Your task to perform on an android device: turn on the 24-hour format for clock Image 0: 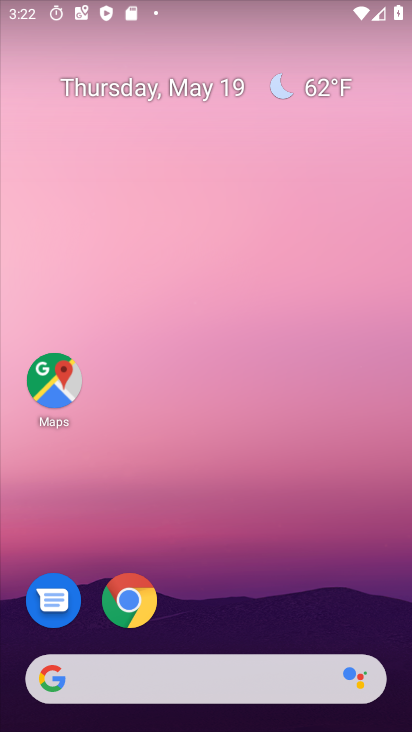
Step 0: press home button
Your task to perform on an android device: turn on the 24-hour format for clock Image 1: 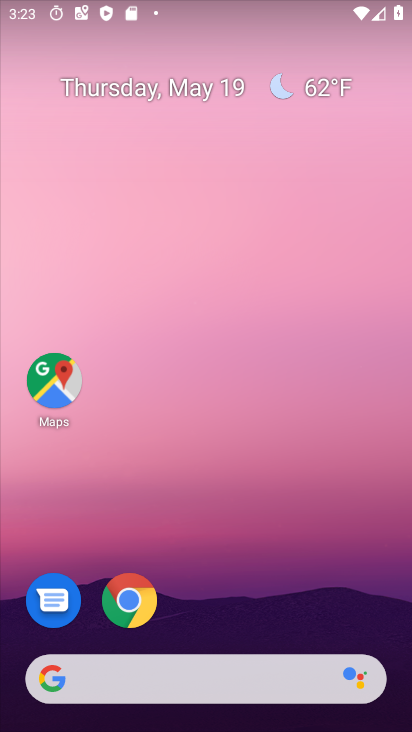
Step 1: drag from (98, 423) to (283, 80)
Your task to perform on an android device: turn on the 24-hour format for clock Image 2: 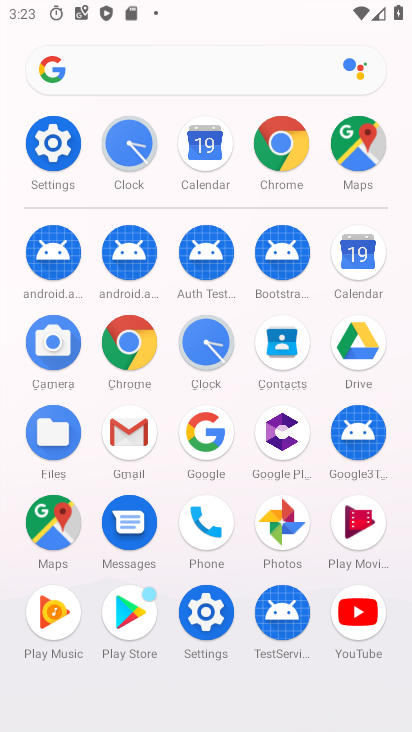
Step 2: click (119, 154)
Your task to perform on an android device: turn on the 24-hour format for clock Image 3: 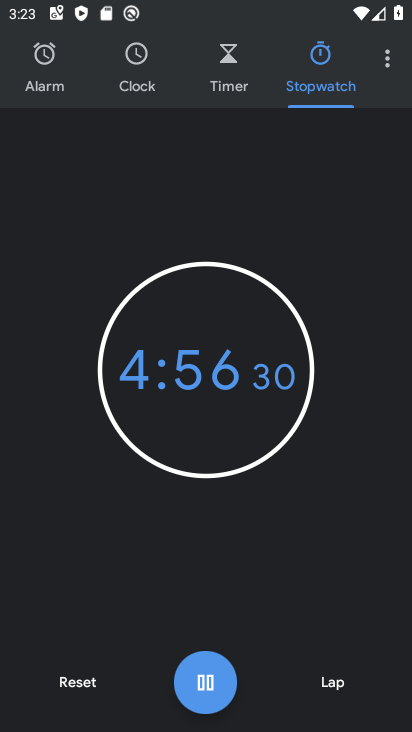
Step 3: click (389, 64)
Your task to perform on an android device: turn on the 24-hour format for clock Image 4: 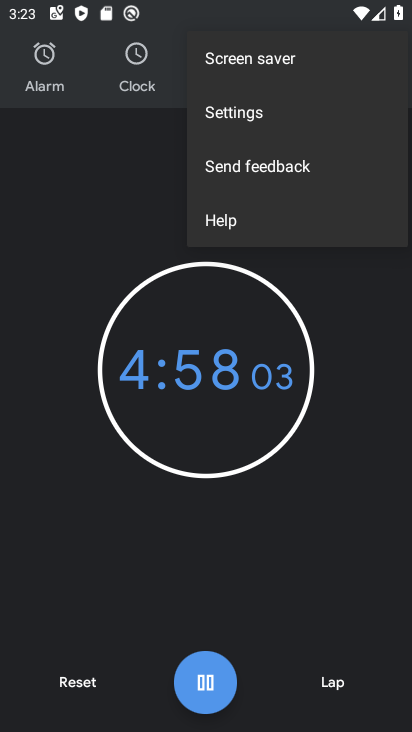
Step 4: click (242, 121)
Your task to perform on an android device: turn on the 24-hour format for clock Image 5: 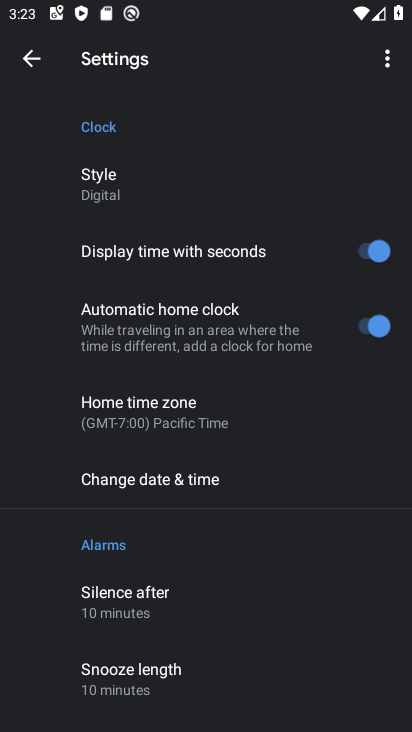
Step 5: drag from (6, 639) to (299, 145)
Your task to perform on an android device: turn on the 24-hour format for clock Image 6: 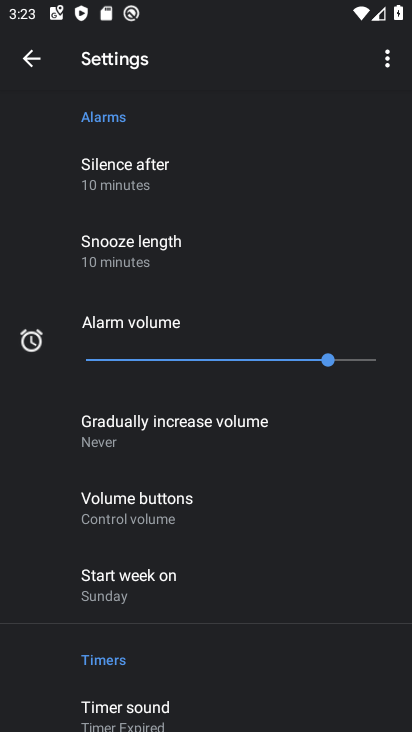
Step 6: drag from (125, 651) to (347, 160)
Your task to perform on an android device: turn on the 24-hour format for clock Image 7: 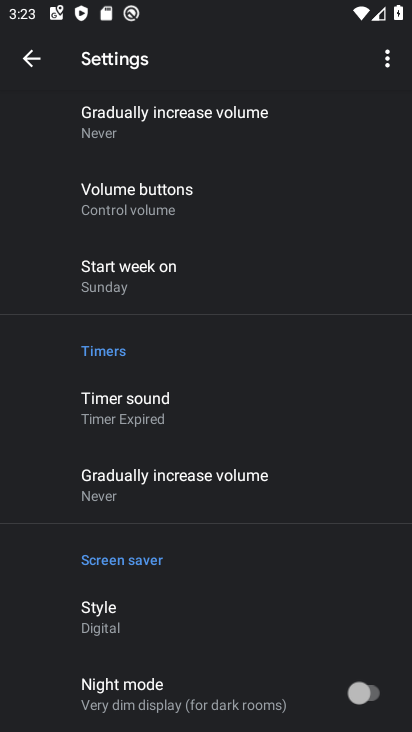
Step 7: drag from (280, 105) to (241, 609)
Your task to perform on an android device: turn on the 24-hour format for clock Image 8: 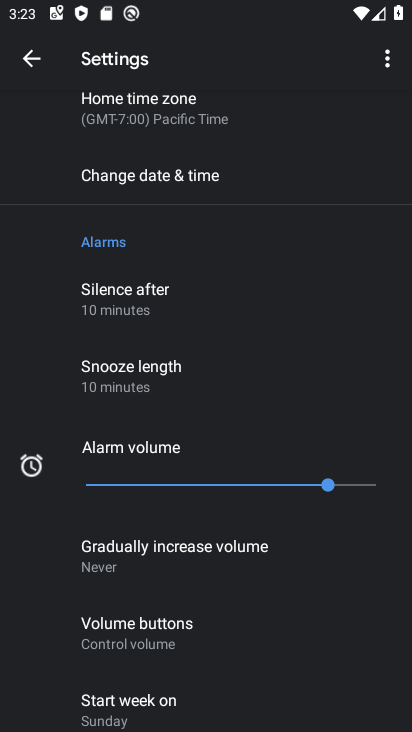
Step 8: click (207, 179)
Your task to perform on an android device: turn on the 24-hour format for clock Image 9: 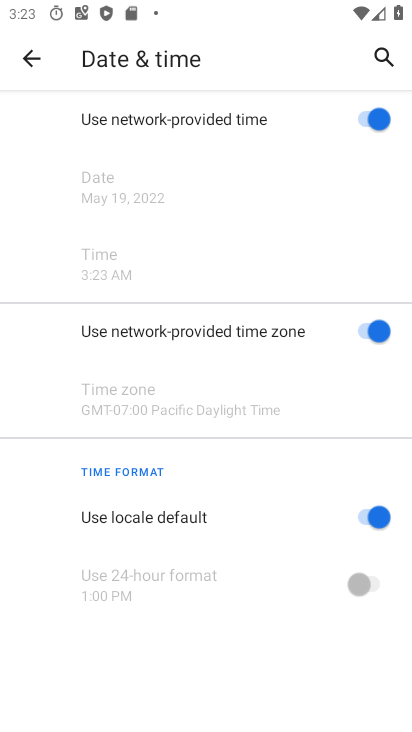
Step 9: click (392, 524)
Your task to perform on an android device: turn on the 24-hour format for clock Image 10: 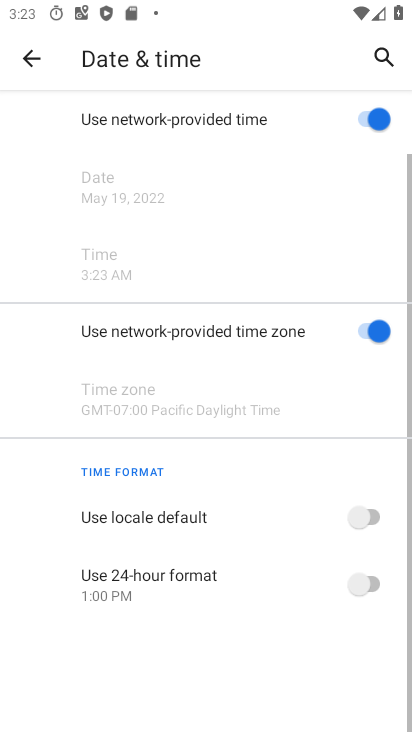
Step 10: click (364, 573)
Your task to perform on an android device: turn on the 24-hour format for clock Image 11: 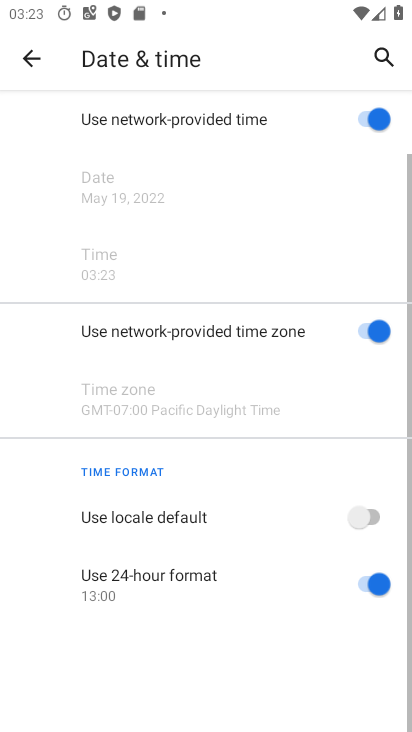
Step 11: task complete